Your task to perform on an android device: check google app version Image 0: 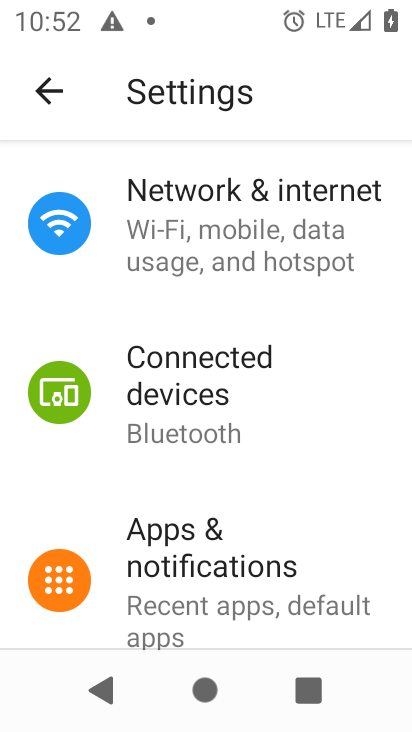
Step 0: press home button
Your task to perform on an android device: check google app version Image 1: 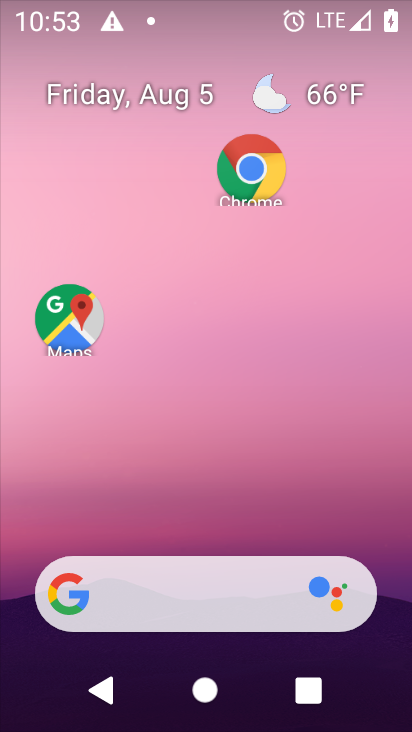
Step 1: drag from (226, 485) to (192, 163)
Your task to perform on an android device: check google app version Image 2: 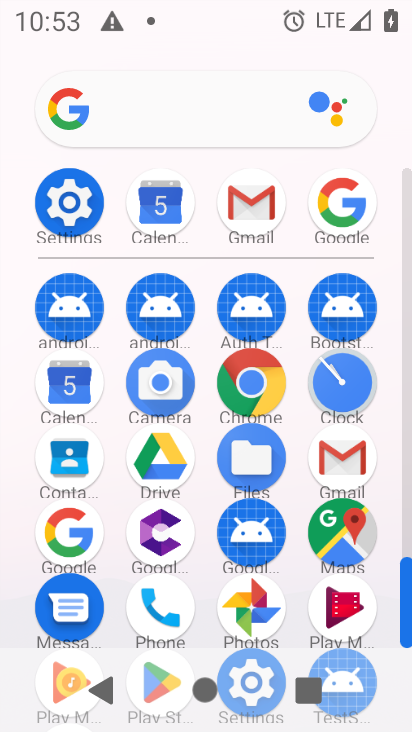
Step 2: click (333, 219)
Your task to perform on an android device: check google app version Image 3: 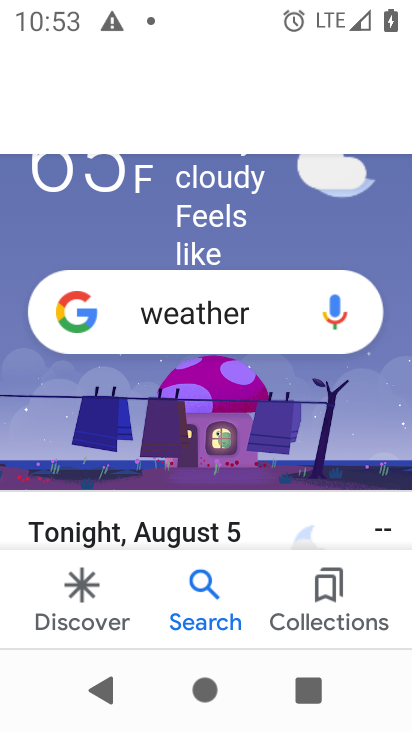
Step 3: drag from (307, 431) to (296, 224)
Your task to perform on an android device: check google app version Image 4: 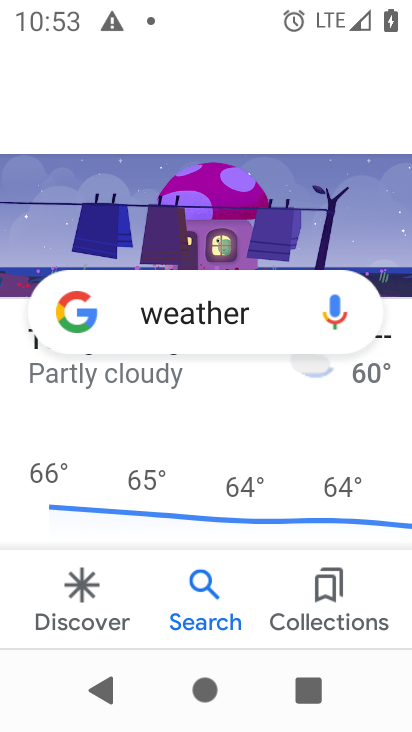
Step 4: drag from (227, 162) to (232, 445)
Your task to perform on an android device: check google app version Image 5: 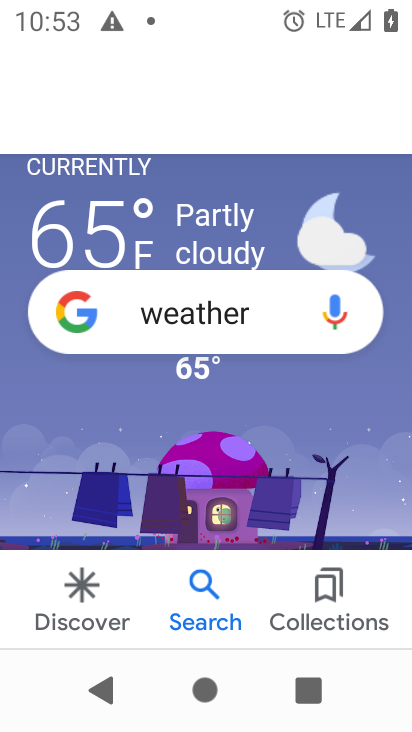
Step 5: drag from (220, 227) to (256, 578)
Your task to perform on an android device: check google app version Image 6: 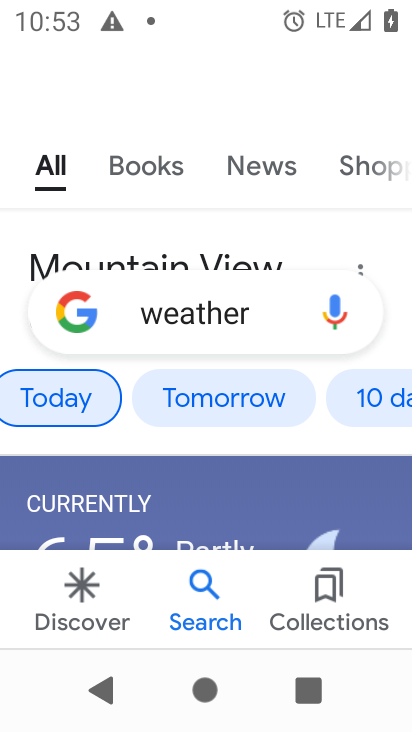
Step 6: drag from (254, 223) to (287, 517)
Your task to perform on an android device: check google app version Image 7: 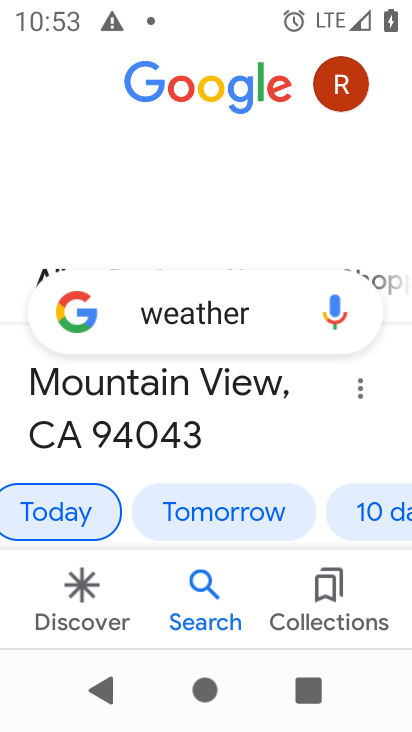
Step 7: click (358, 87)
Your task to perform on an android device: check google app version Image 8: 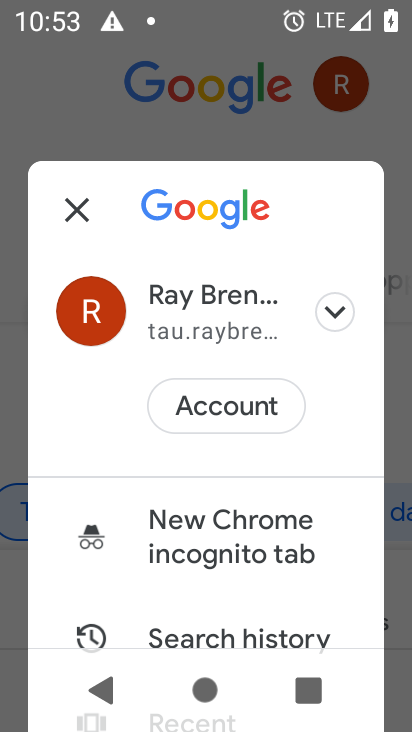
Step 8: drag from (276, 578) to (216, 323)
Your task to perform on an android device: check google app version Image 9: 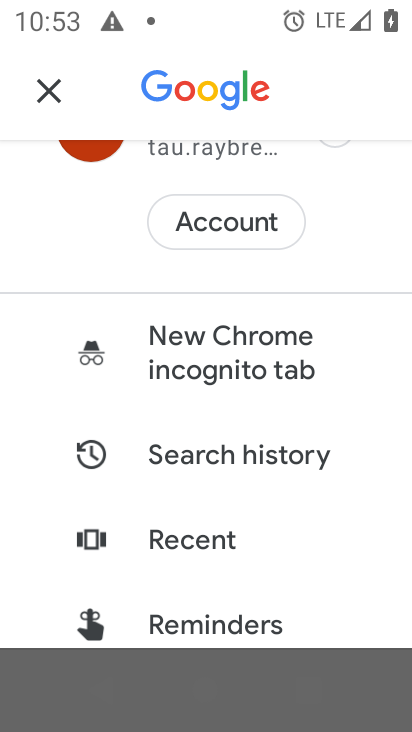
Step 9: drag from (213, 561) to (230, 292)
Your task to perform on an android device: check google app version Image 10: 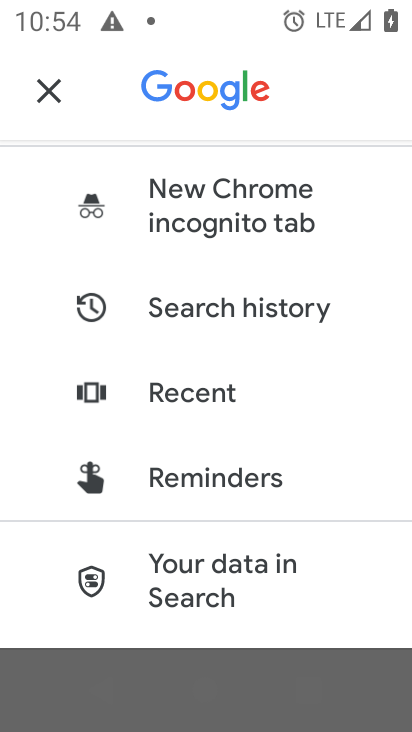
Step 10: drag from (169, 587) to (217, 260)
Your task to perform on an android device: check google app version Image 11: 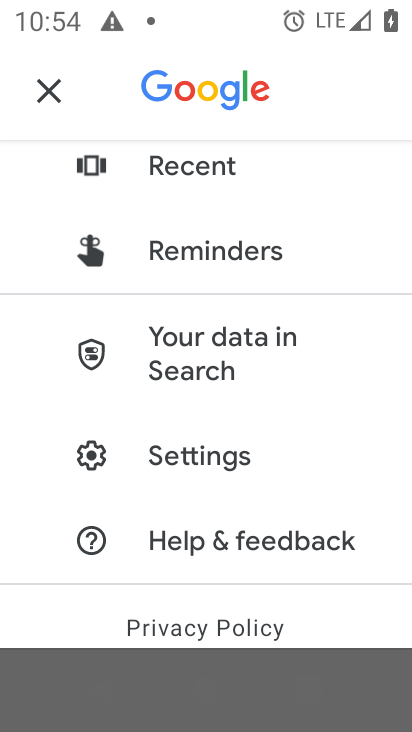
Step 11: click (191, 463)
Your task to perform on an android device: check google app version Image 12: 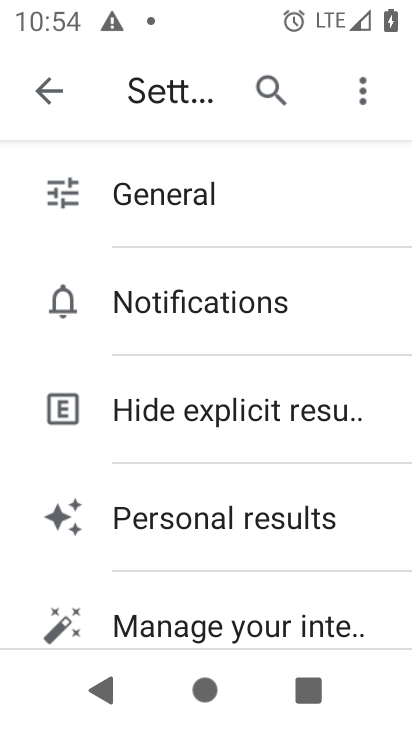
Step 12: drag from (227, 613) to (213, 173)
Your task to perform on an android device: check google app version Image 13: 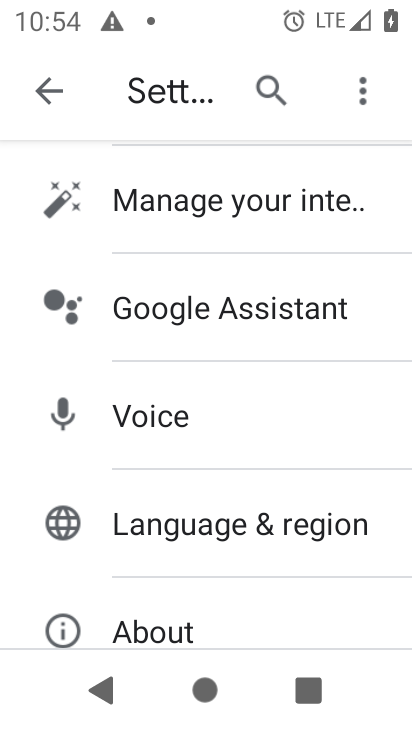
Step 13: click (188, 615)
Your task to perform on an android device: check google app version Image 14: 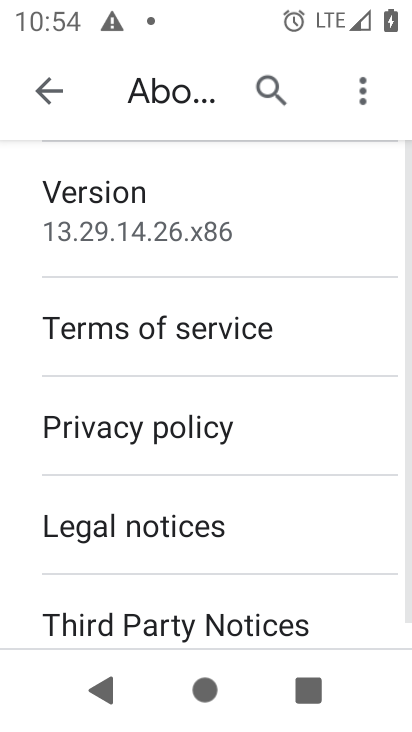
Step 14: click (230, 204)
Your task to perform on an android device: check google app version Image 15: 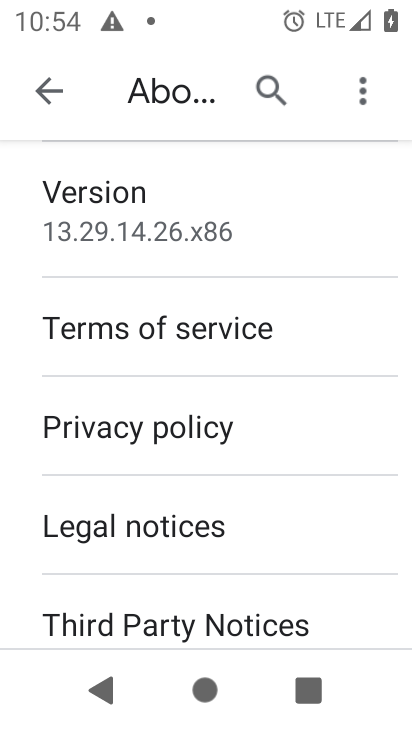
Step 15: task complete